Your task to perform on an android device: change timer sound Image 0: 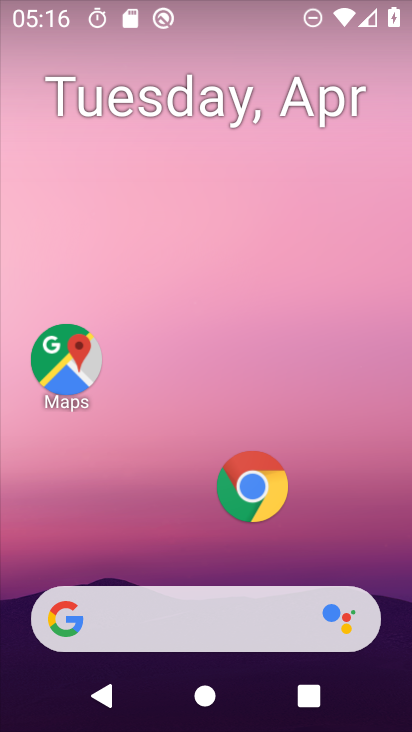
Step 0: drag from (203, 545) to (237, 122)
Your task to perform on an android device: change timer sound Image 1: 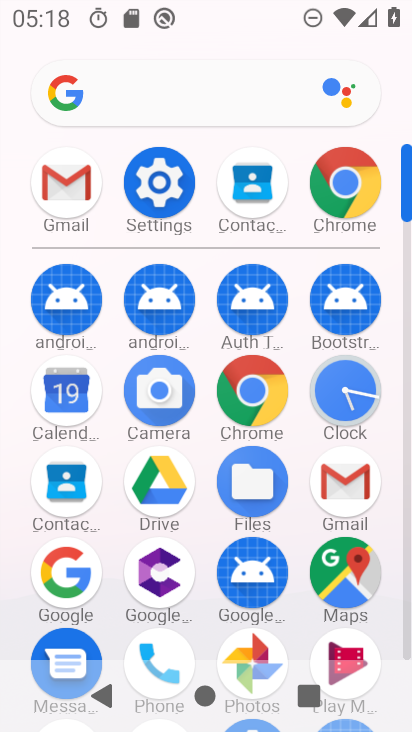
Step 1: click (149, 185)
Your task to perform on an android device: change timer sound Image 2: 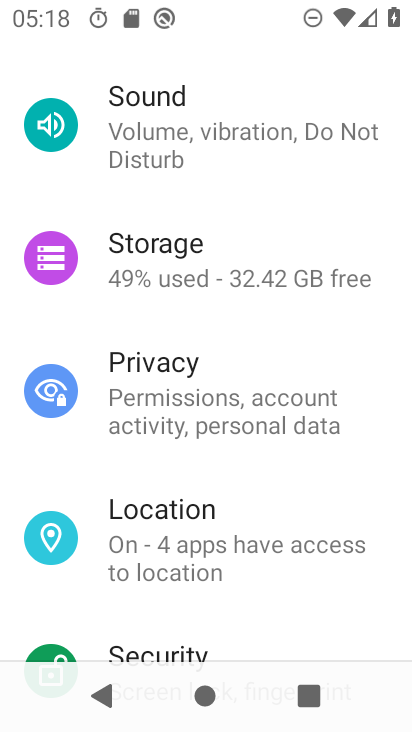
Step 2: press home button
Your task to perform on an android device: change timer sound Image 3: 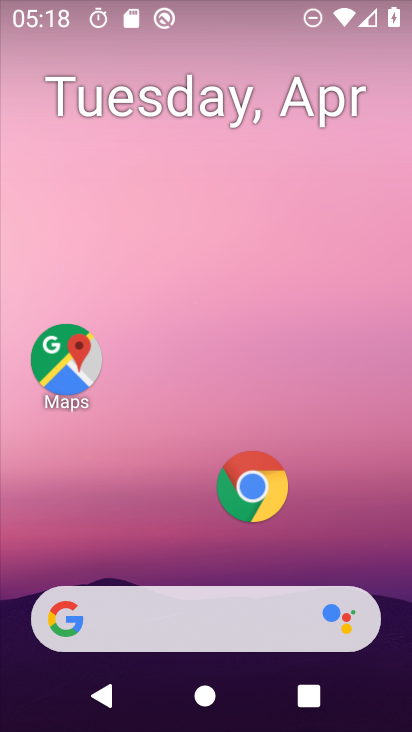
Step 3: drag from (194, 431) to (250, 9)
Your task to perform on an android device: change timer sound Image 4: 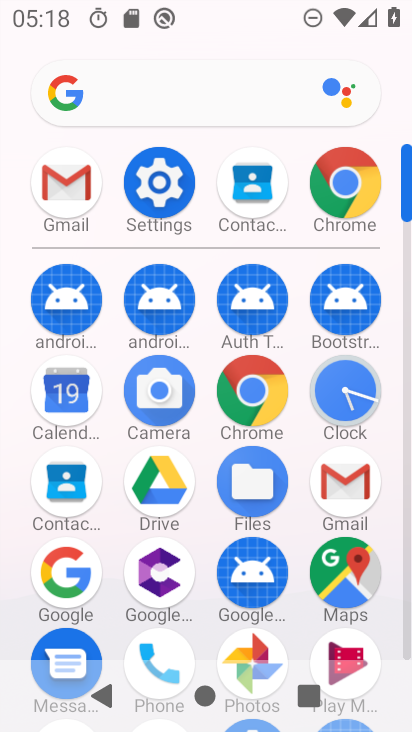
Step 4: click (341, 406)
Your task to perform on an android device: change timer sound Image 5: 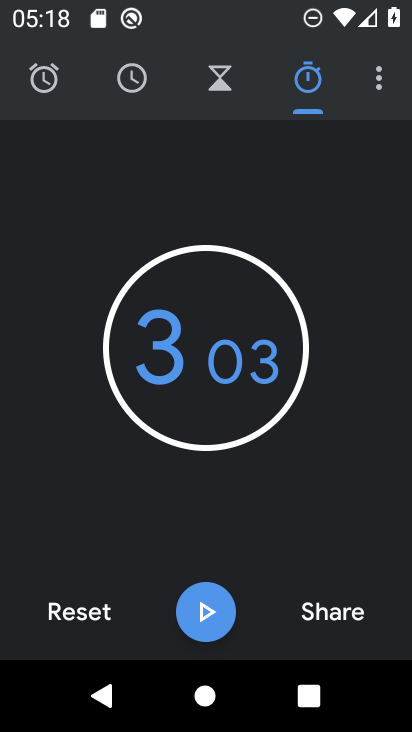
Step 5: drag from (375, 79) to (315, 193)
Your task to perform on an android device: change timer sound Image 6: 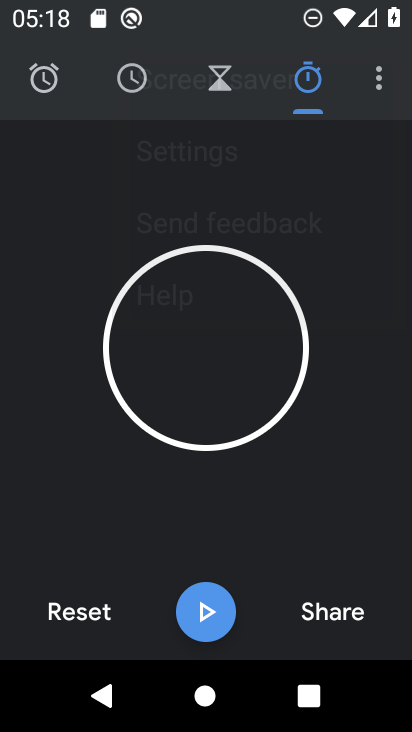
Step 6: click (371, 83)
Your task to perform on an android device: change timer sound Image 7: 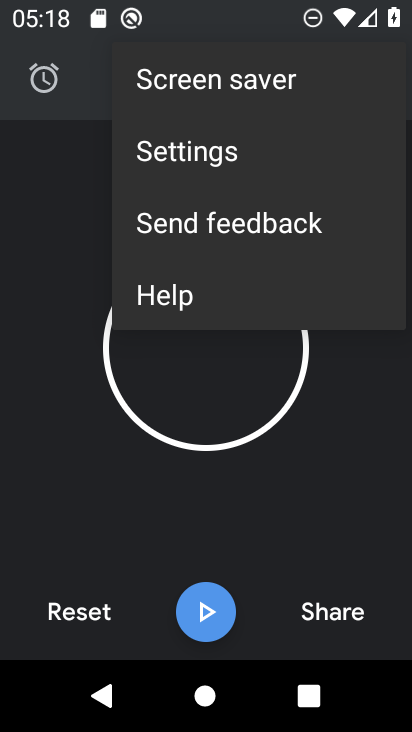
Step 7: click (194, 165)
Your task to perform on an android device: change timer sound Image 8: 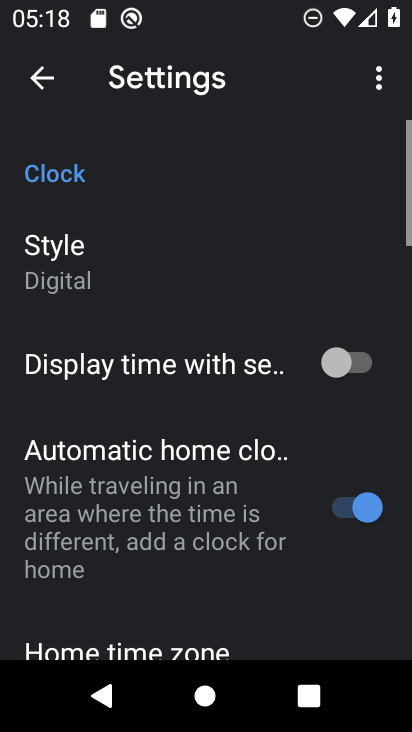
Step 8: drag from (131, 572) to (256, 101)
Your task to perform on an android device: change timer sound Image 9: 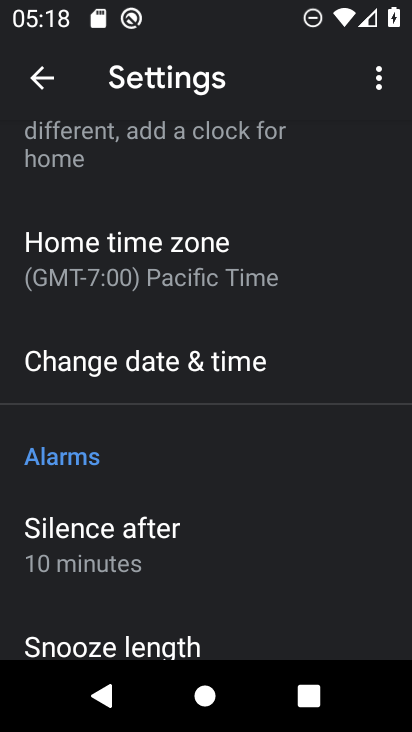
Step 9: click (132, 353)
Your task to perform on an android device: change timer sound Image 10: 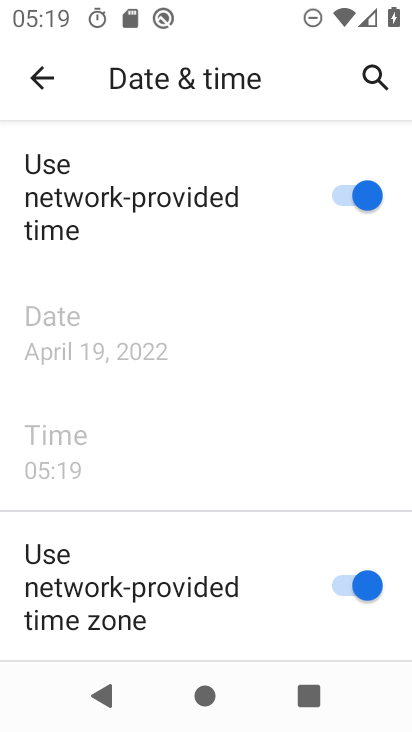
Step 10: drag from (130, 594) to (228, 77)
Your task to perform on an android device: change timer sound Image 11: 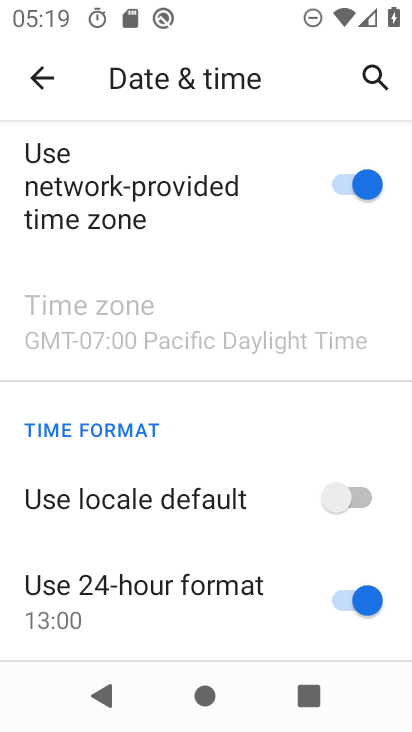
Step 11: drag from (197, 282) to (156, 615)
Your task to perform on an android device: change timer sound Image 12: 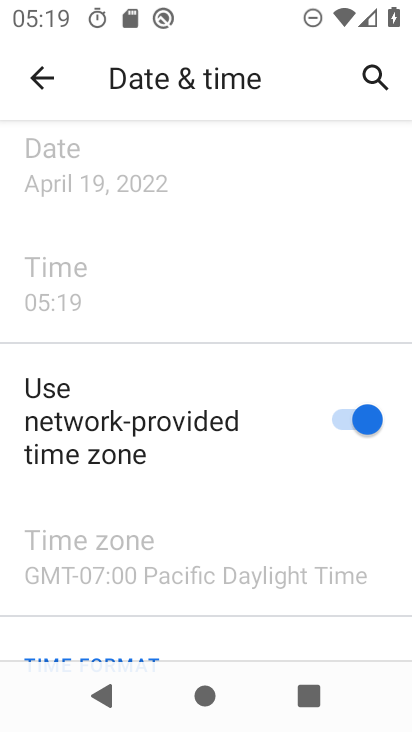
Step 12: drag from (176, 153) to (126, 561)
Your task to perform on an android device: change timer sound Image 13: 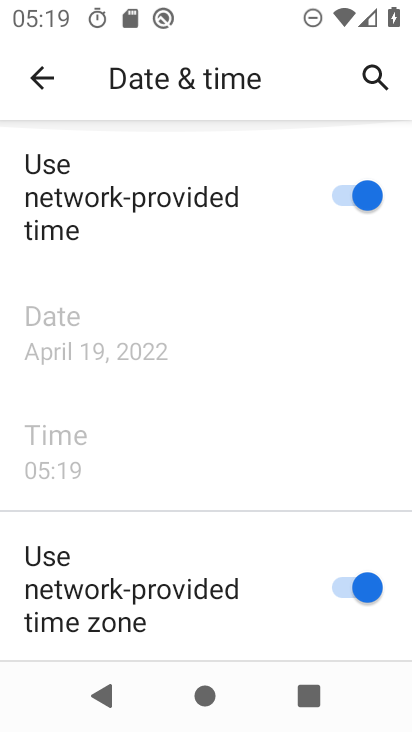
Step 13: drag from (170, 269) to (172, 582)
Your task to perform on an android device: change timer sound Image 14: 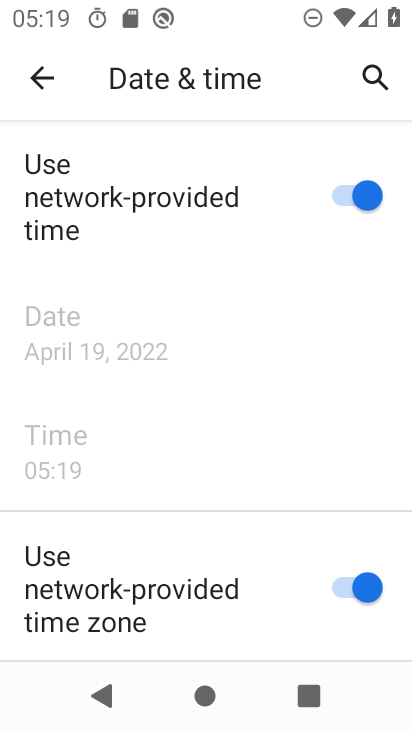
Step 14: click (45, 76)
Your task to perform on an android device: change timer sound Image 15: 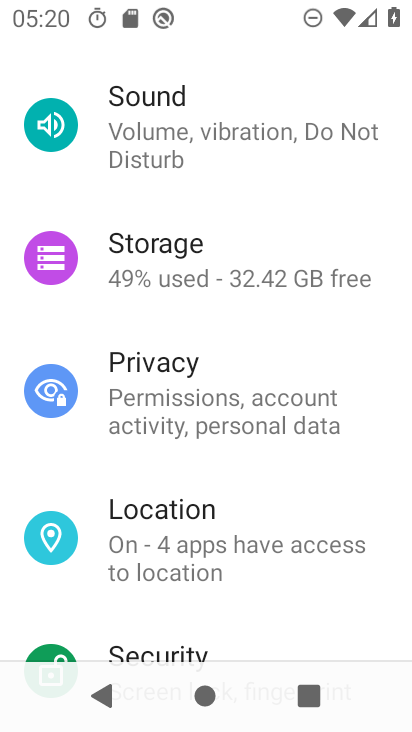
Step 15: press home button
Your task to perform on an android device: change timer sound Image 16: 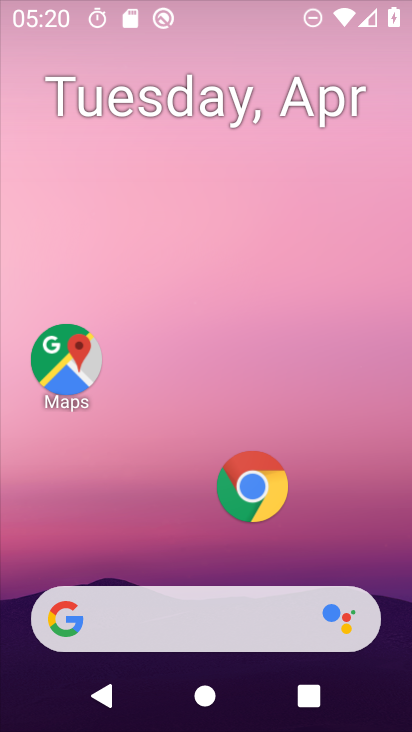
Step 16: drag from (150, 521) to (197, 34)
Your task to perform on an android device: change timer sound Image 17: 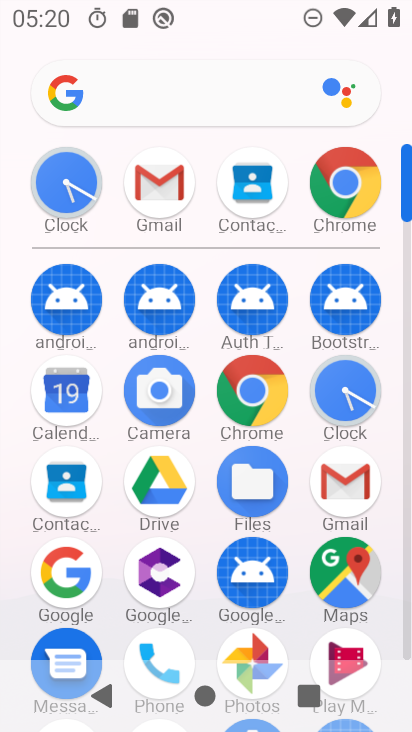
Step 17: click (350, 395)
Your task to perform on an android device: change timer sound Image 18: 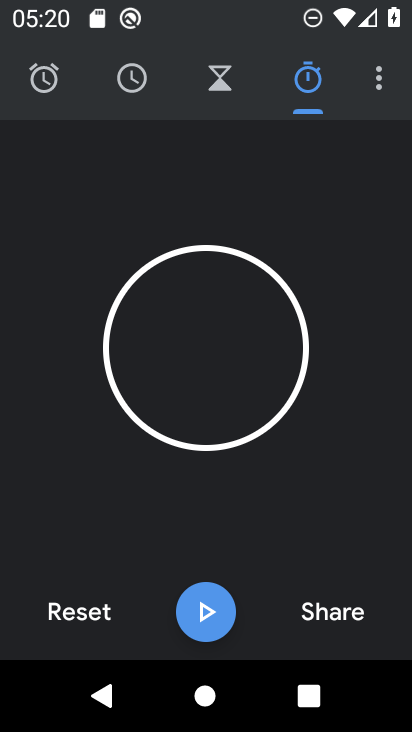
Step 18: click (376, 76)
Your task to perform on an android device: change timer sound Image 19: 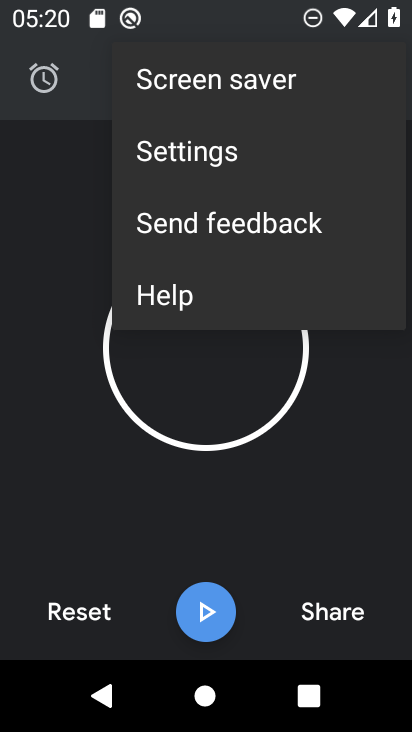
Step 19: click (209, 147)
Your task to perform on an android device: change timer sound Image 20: 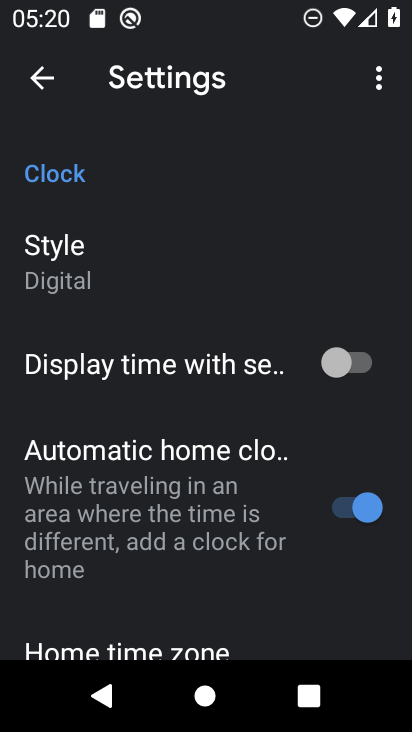
Step 20: drag from (167, 551) to (247, 111)
Your task to perform on an android device: change timer sound Image 21: 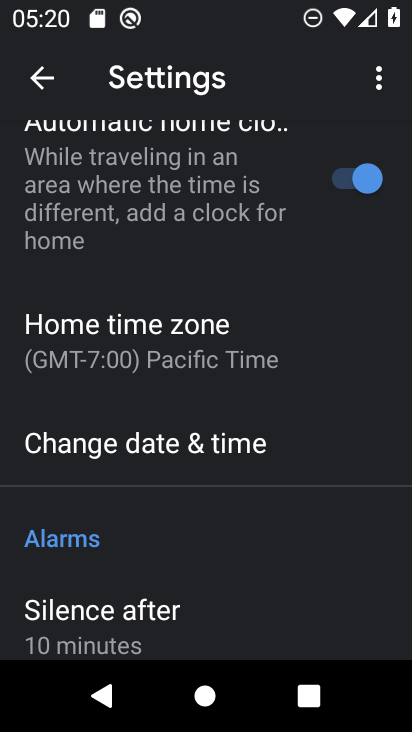
Step 21: drag from (175, 543) to (229, 141)
Your task to perform on an android device: change timer sound Image 22: 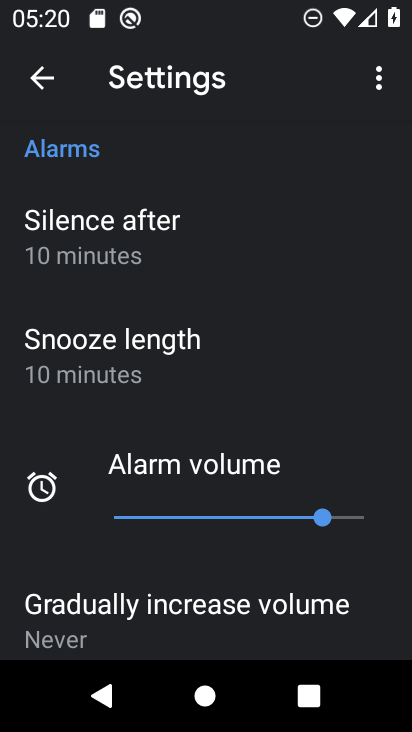
Step 22: drag from (211, 457) to (243, 212)
Your task to perform on an android device: change timer sound Image 23: 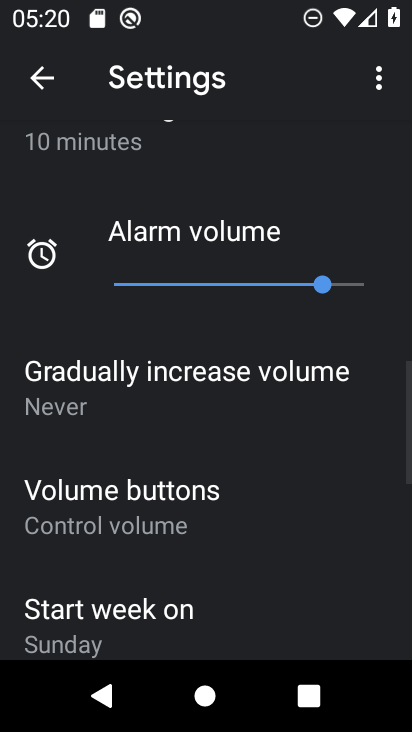
Step 23: drag from (176, 549) to (273, 144)
Your task to perform on an android device: change timer sound Image 24: 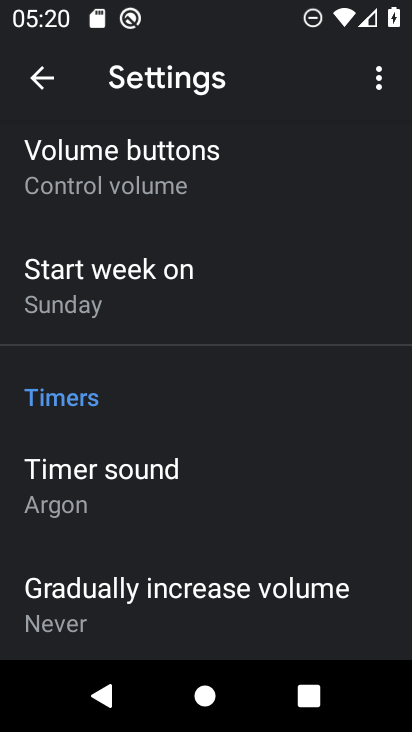
Step 24: click (94, 478)
Your task to perform on an android device: change timer sound Image 25: 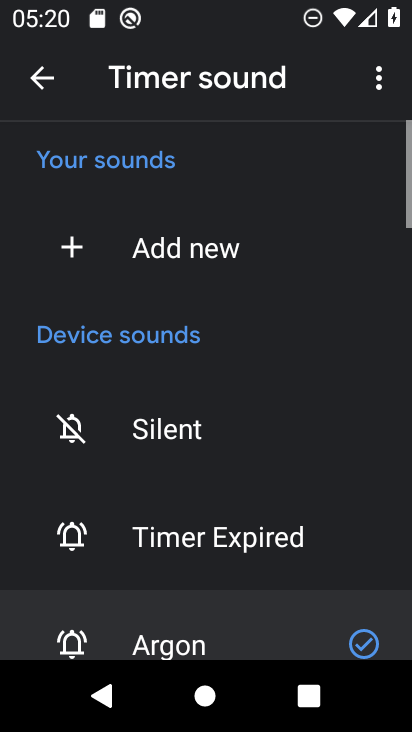
Step 25: drag from (190, 592) to (245, 196)
Your task to perform on an android device: change timer sound Image 26: 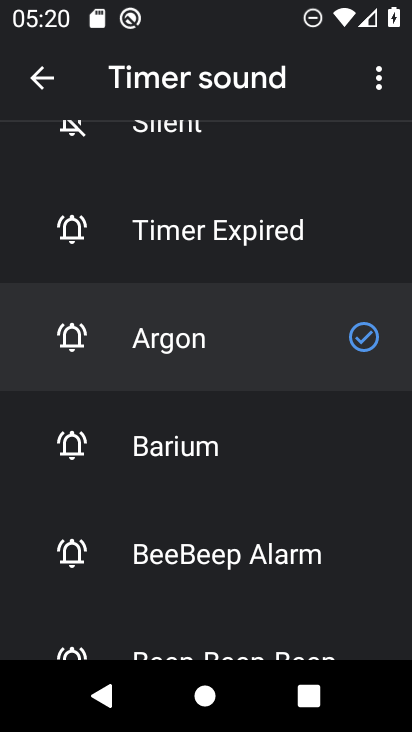
Step 26: click (164, 449)
Your task to perform on an android device: change timer sound Image 27: 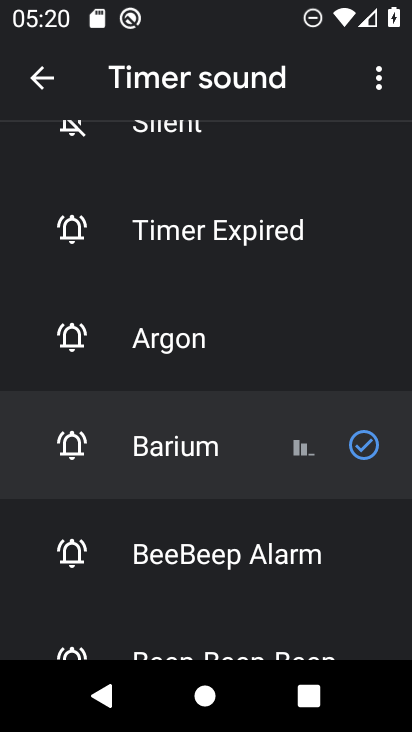
Step 27: task complete